Your task to perform on an android device: turn on showing notifications on the lock screen Image 0: 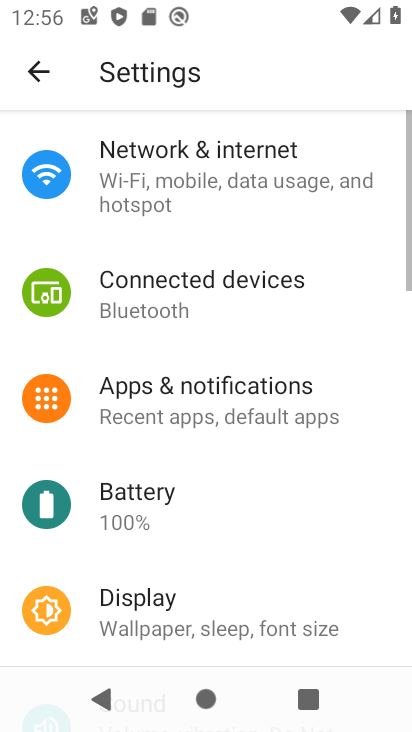
Step 0: press home button
Your task to perform on an android device: turn on showing notifications on the lock screen Image 1: 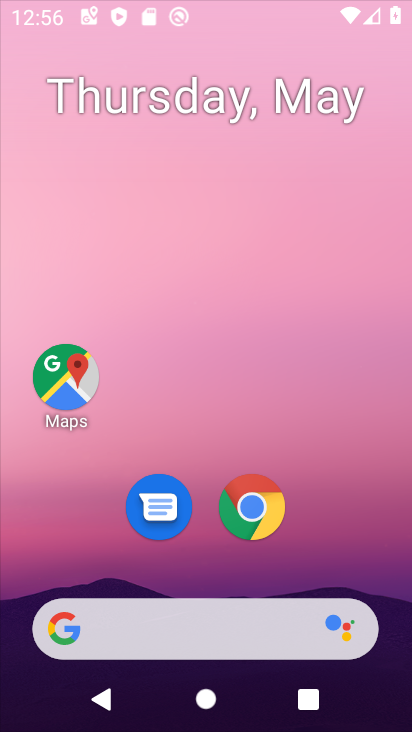
Step 1: drag from (399, 598) to (411, 362)
Your task to perform on an android device: turn on showing notifications on the lock screen Image 2: 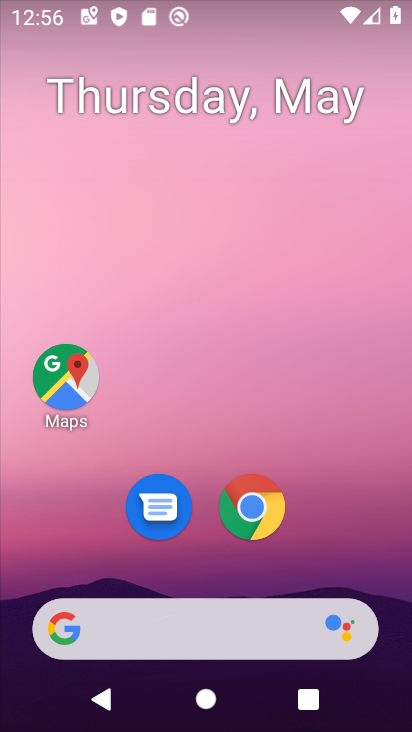
Step 2: drag from (247, 576) to (290, 216)
Your task to perform on an android device: turn on showing notifications on the lock screen Image 3: 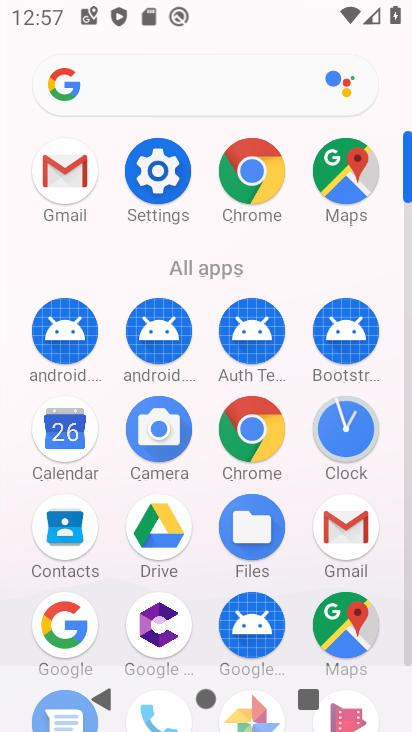
Step 3: click (139, 165)
Your task to perform on an android device: turn on showing notifications on the lock screen Image 4: 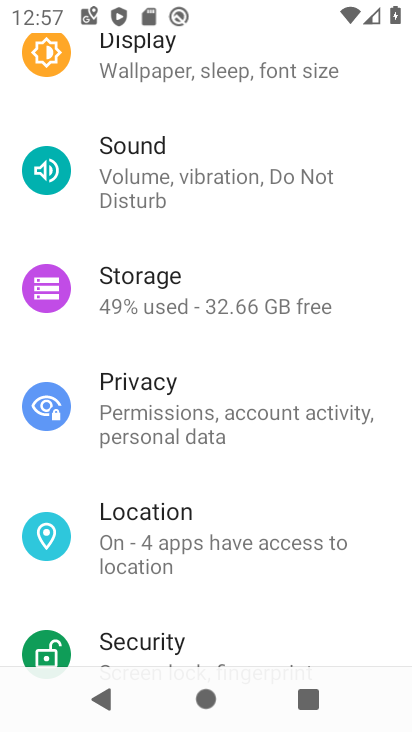
Step 4: drag from (218, 282) to (196, 730)
Your task to perform on an android device: turn on showing notifications on the lock screen Image 5: 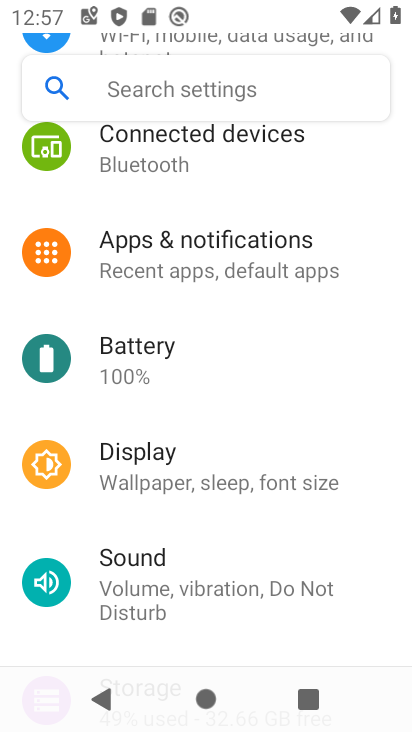
Step 5: click (200, 272)
Your task to perform on an android device: turn on showing notifications on the lock screen Image 6: 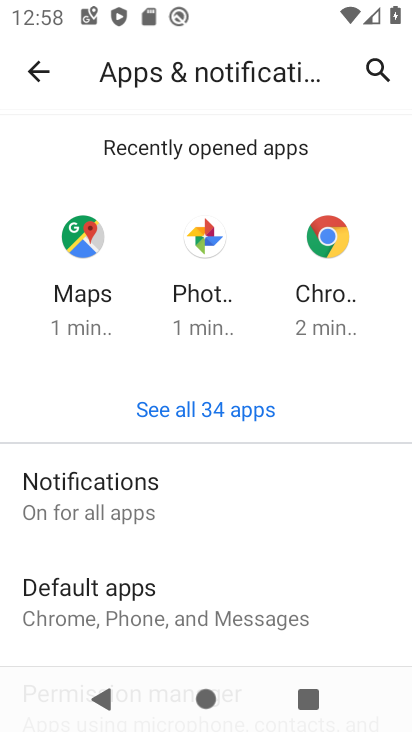
Step 6: drag from (145, 622) to (132, 224)
Your task to perform on an android device: turn on showing notifications on the lock screen Image 7: 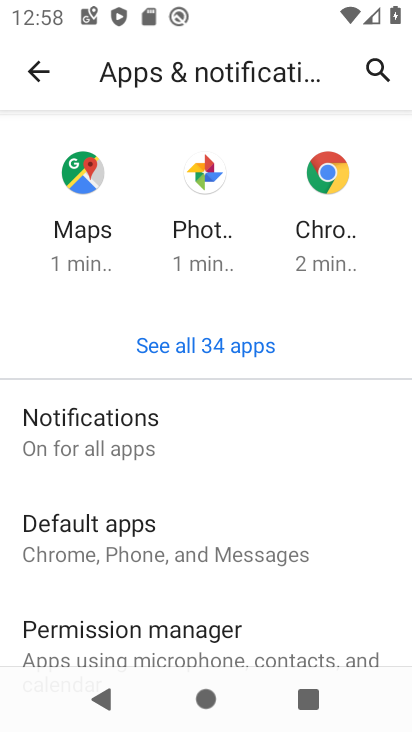
Step 7: click (141, 442)
Your task to perform on an android device: turn on showing notifications on the lock screen Image 8: 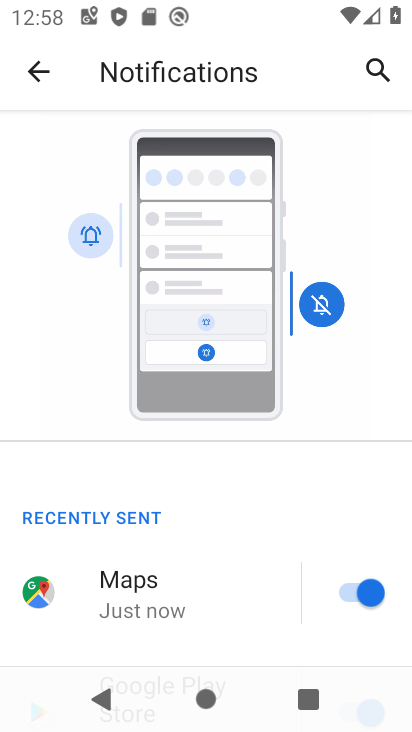
Step 8: drag from (208, 649) to (237, 158)
Your task to perform on an android device: turn on showing notifications on the lock screen Image 9: 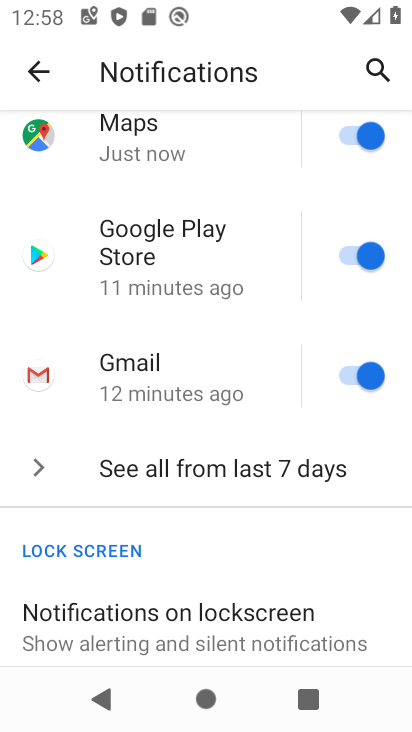
Step 9: click (235, 616)
Your task to perform on an android device: turn on showing notifications on the lock screen Image 10: 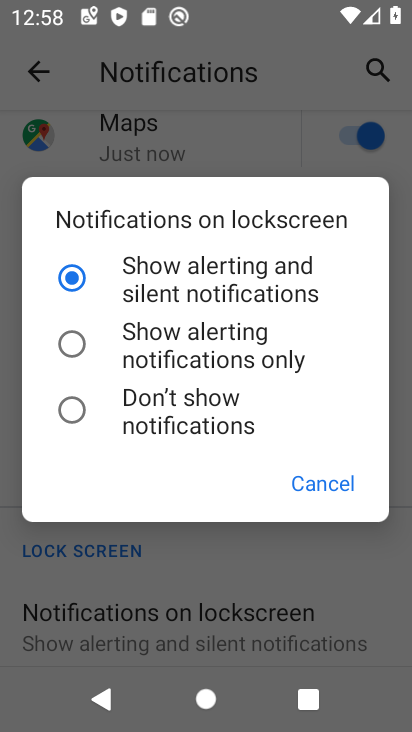
Step 10: task complete